Your task to perform on an android device: change the clock display to analog Image 0: 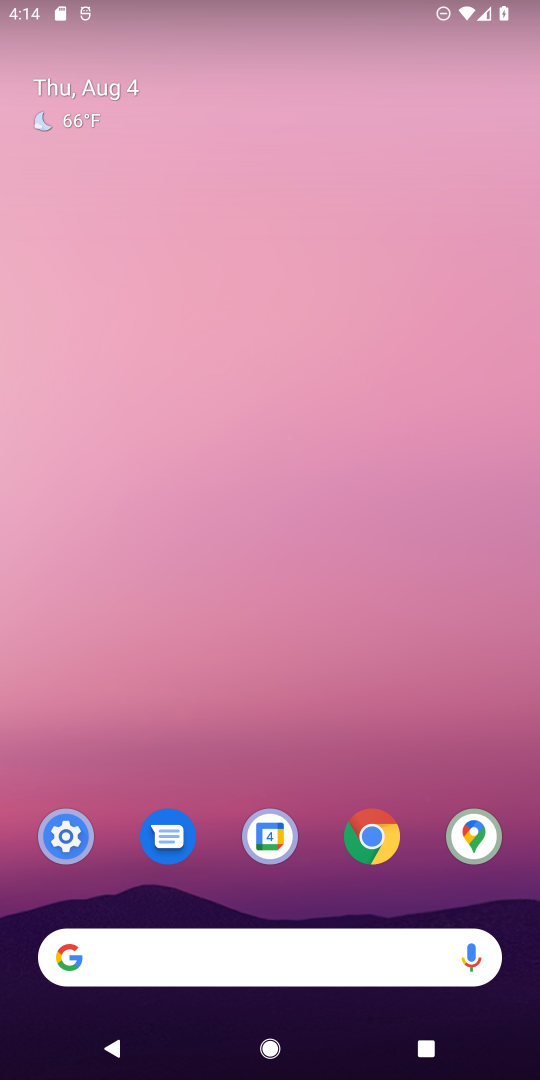
Step 0: drag from (366, 963) to (518, 44)
Your task to perform on an android device: change the clock display to analog Image 1: 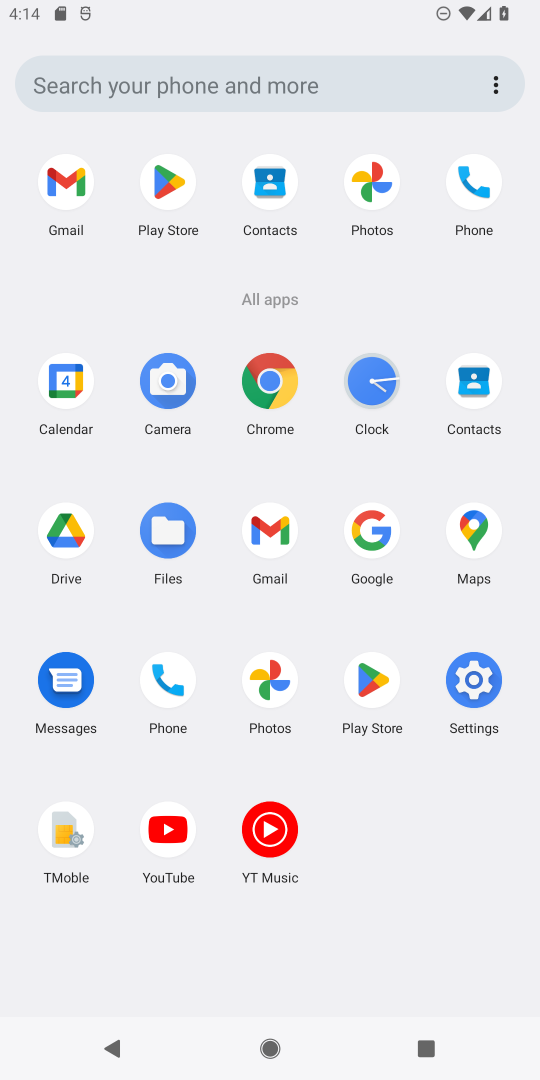
Step 1: click (356, 384)
Your task to perform on an android device: change the clock display to analog Image 2: 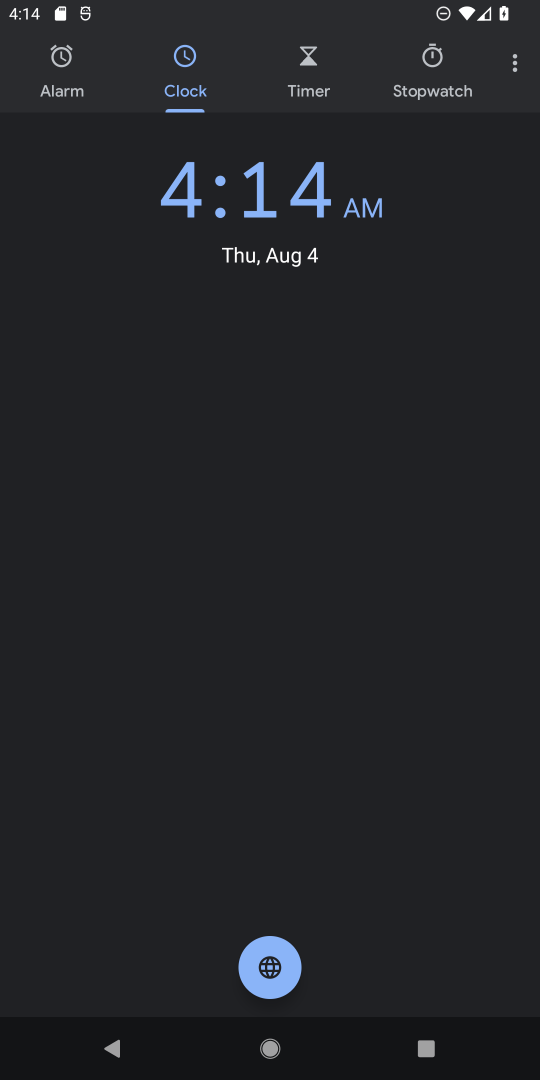
Step 2: click (524, 62)
Your task to perform on an android device: change the clock display to analog Image 3: 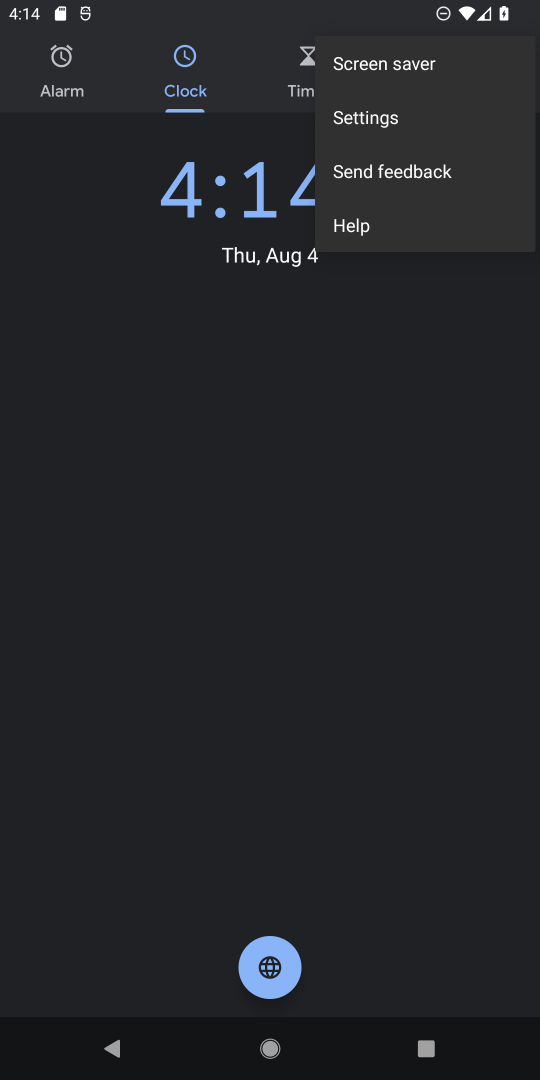
Step 3: click (368, 124)
Your task to perform on an android device: change the clock display to analog Image 4: 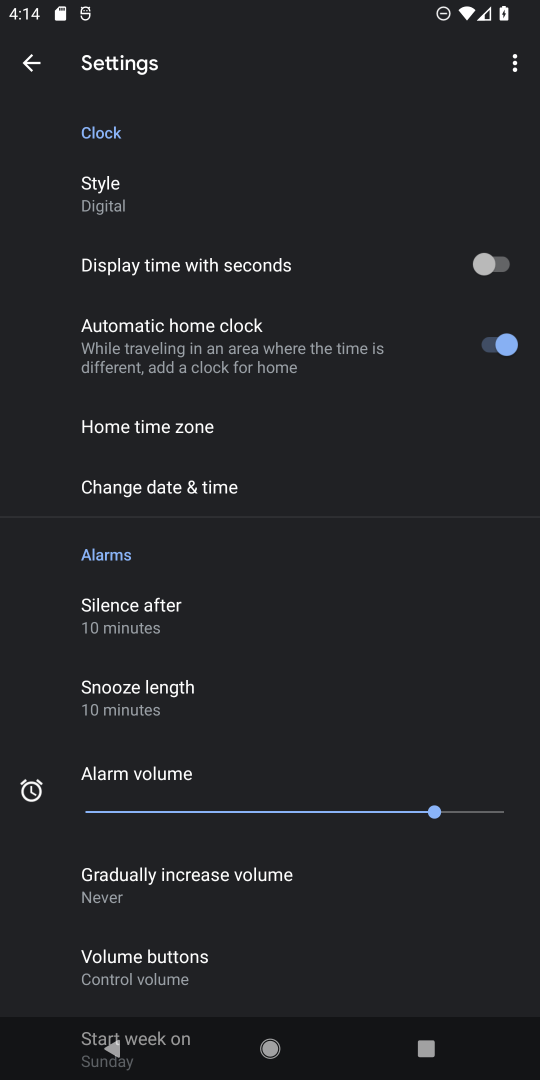
Step 4: click (180, 182)
Your task to perform on an android device: change the clock display to analog Image 5: 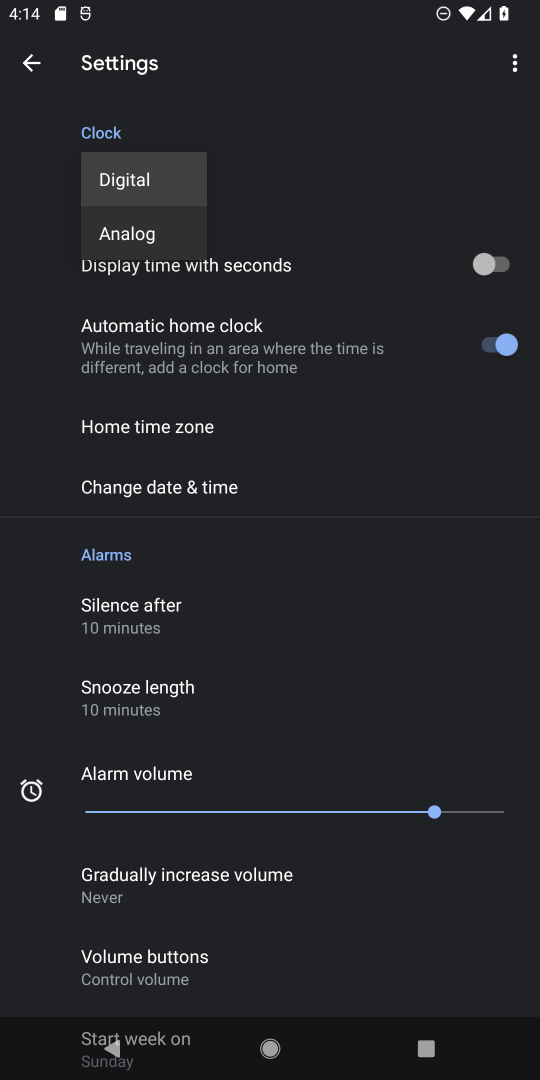
Step 5: click (126, 240)
Your task to perform on an android device: change the clock display to analog Image 6: 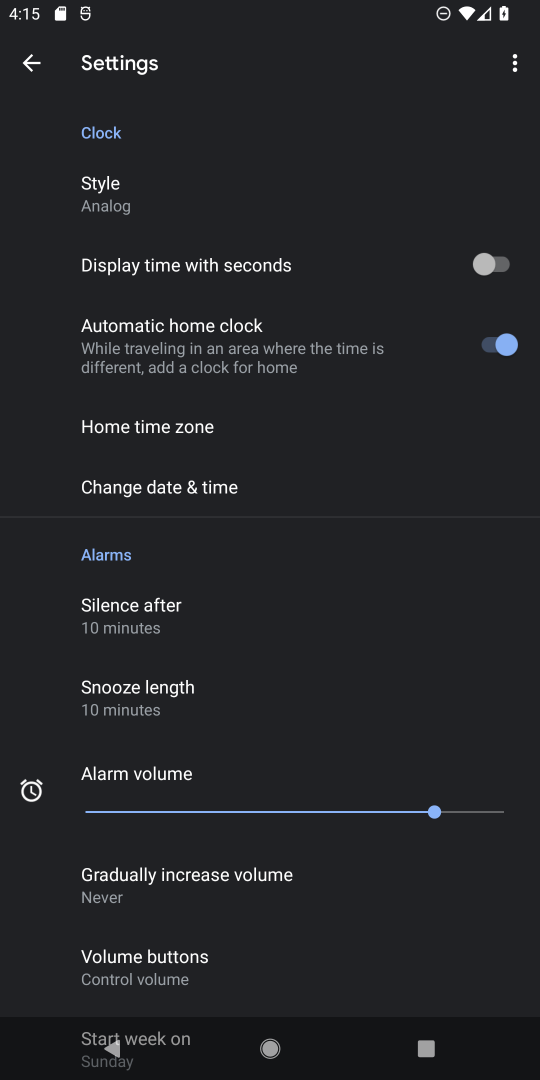
Step 6: task complete